Your task to perform on an android device: Open battery settings Image 0: 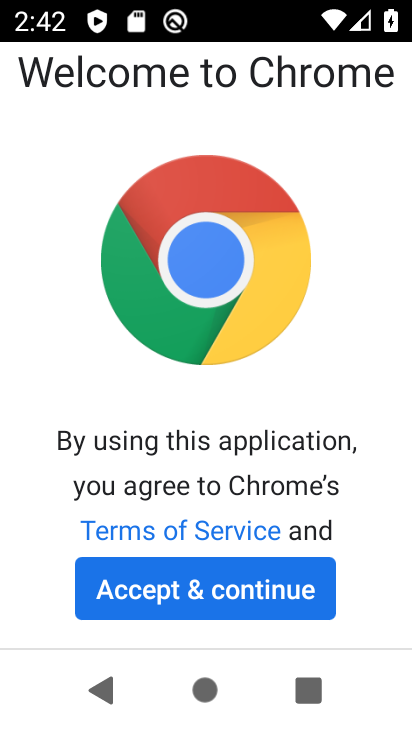
Step 0: press home button
Your task to perform on an android device: Open battery settings Image 1: 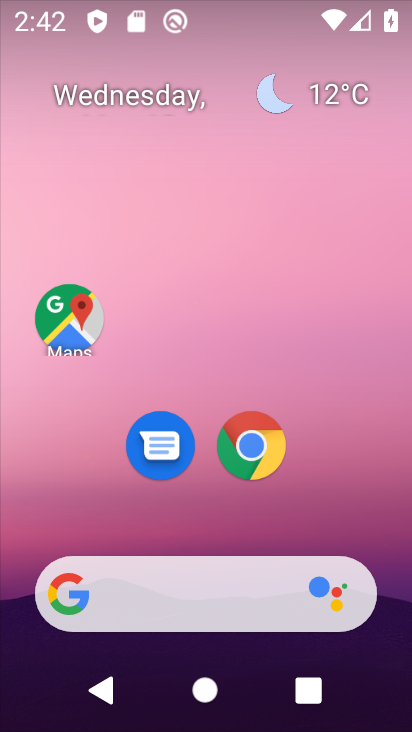
Step 1: drag from (363, 548) to (316, 43)
Your task to perform on an android device: Open battery settings Image 2: 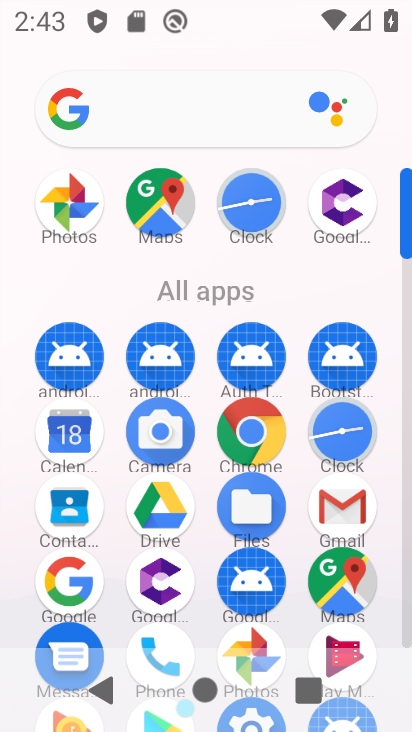
Step 2: drag from (202, 320) to (206, 96)
Your task to perform on an android device: Open battery settings Image 3: 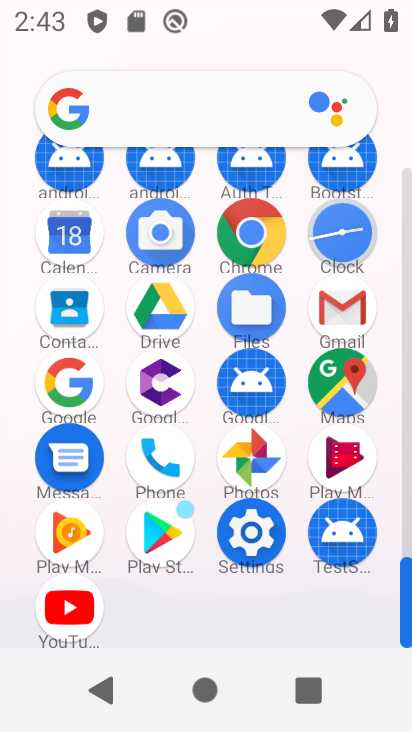
Step 3: click (254, 539)
Your task to perform on an android device: Open battery settings Image 4: 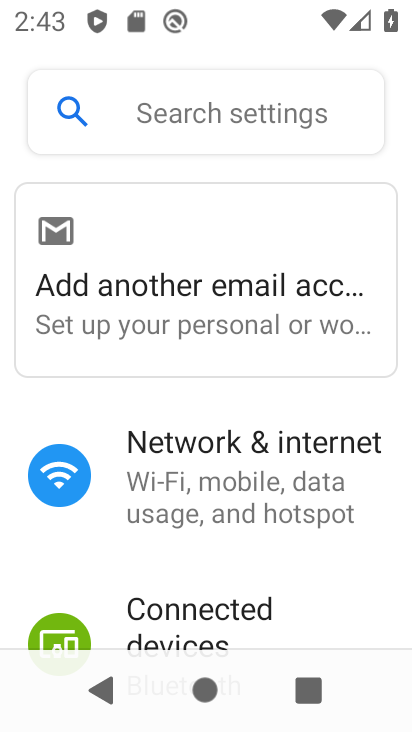
Step 4: drag from (96, 419) to (100, 123)
Your task to perform on an android device: Open battery settings Image 5: 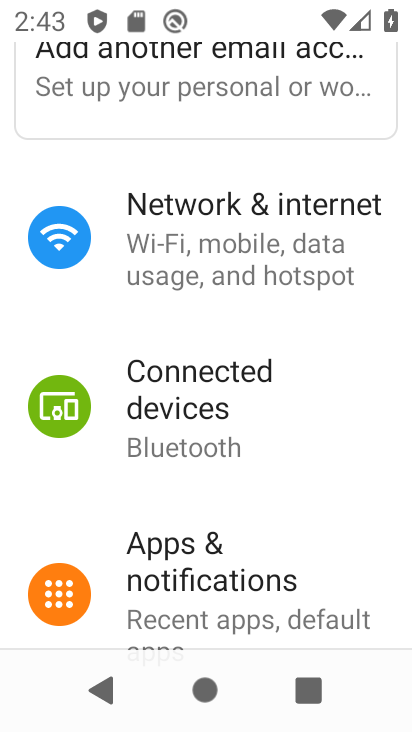
Step 5: drag from (170, 502) to (178, 230)
Your task to perform on an android device: Open battery settings Image 6: 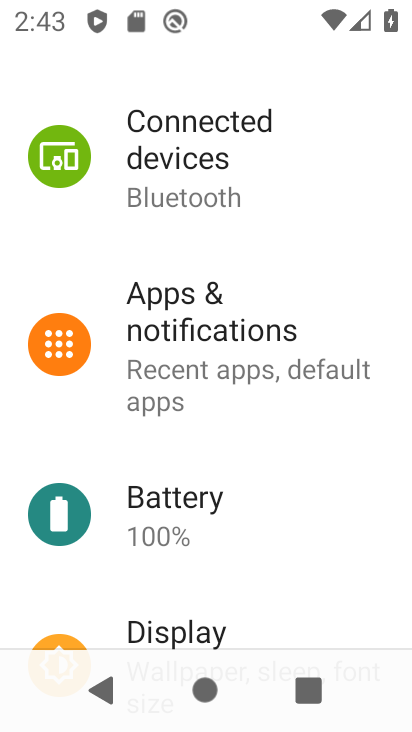
Step 6: click (194, 493)
Your task to perform on an android device: Open battery settings Image 7: 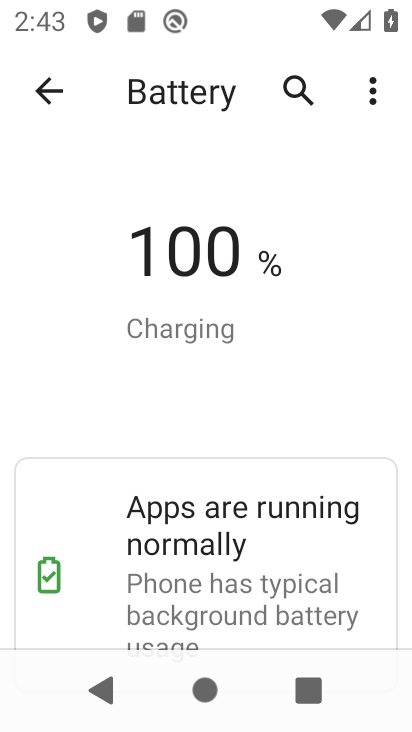
Step 7: task complete